Your task to perform on an android device: toggle wifi Image 0: 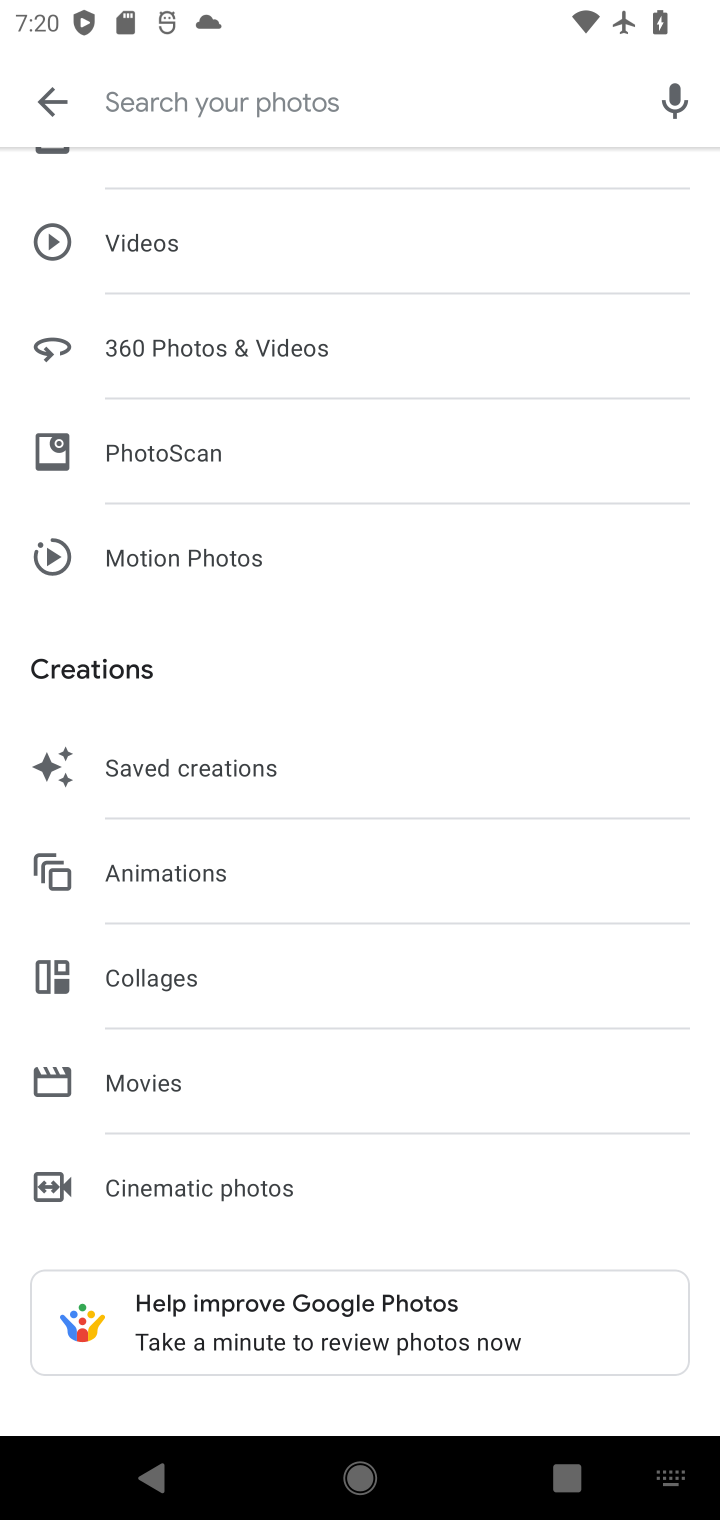
Step 0: press home button
Your task to perform on an android device: toggle wifi Image 1: 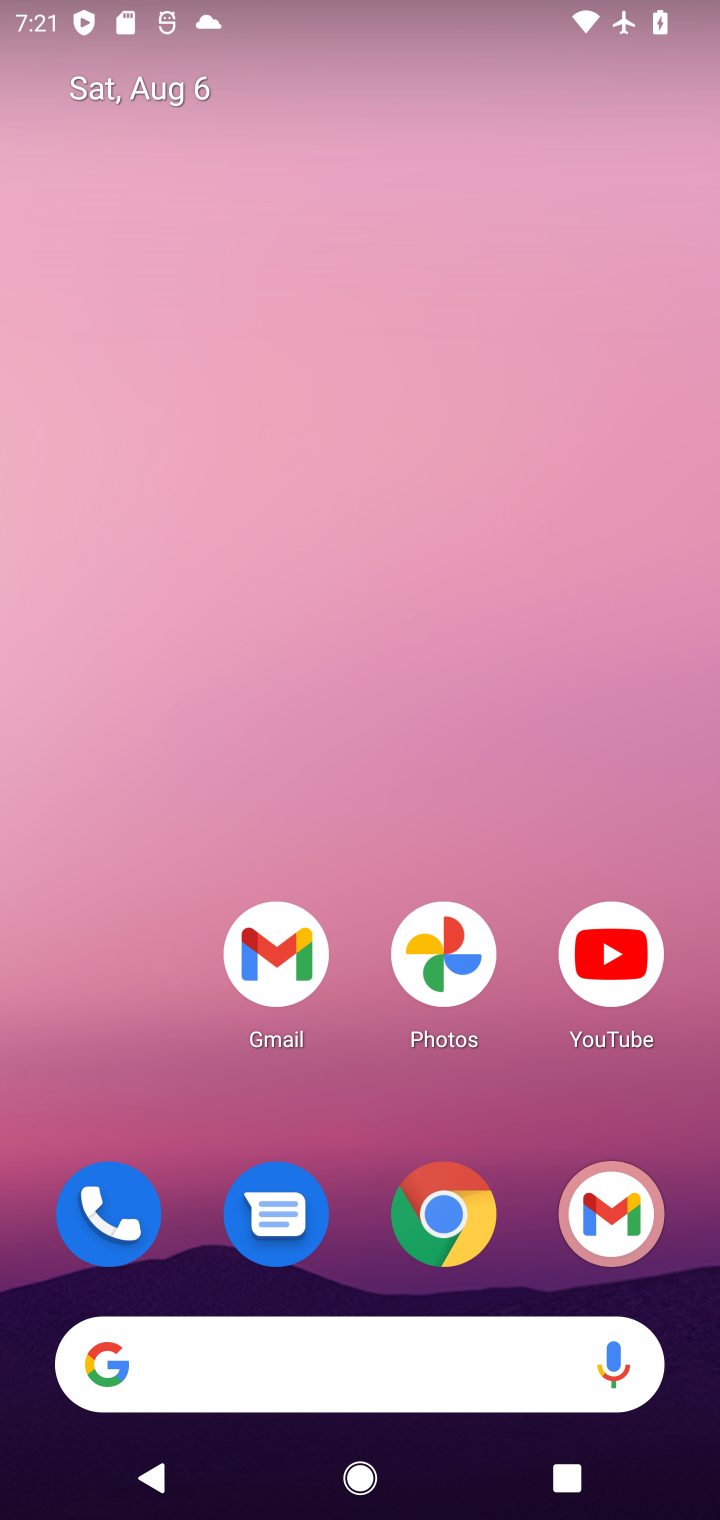
Step 1: drag from (371, 1192) to (257, 0)
Your task to perform on an android device: toggle wifi Image 2: 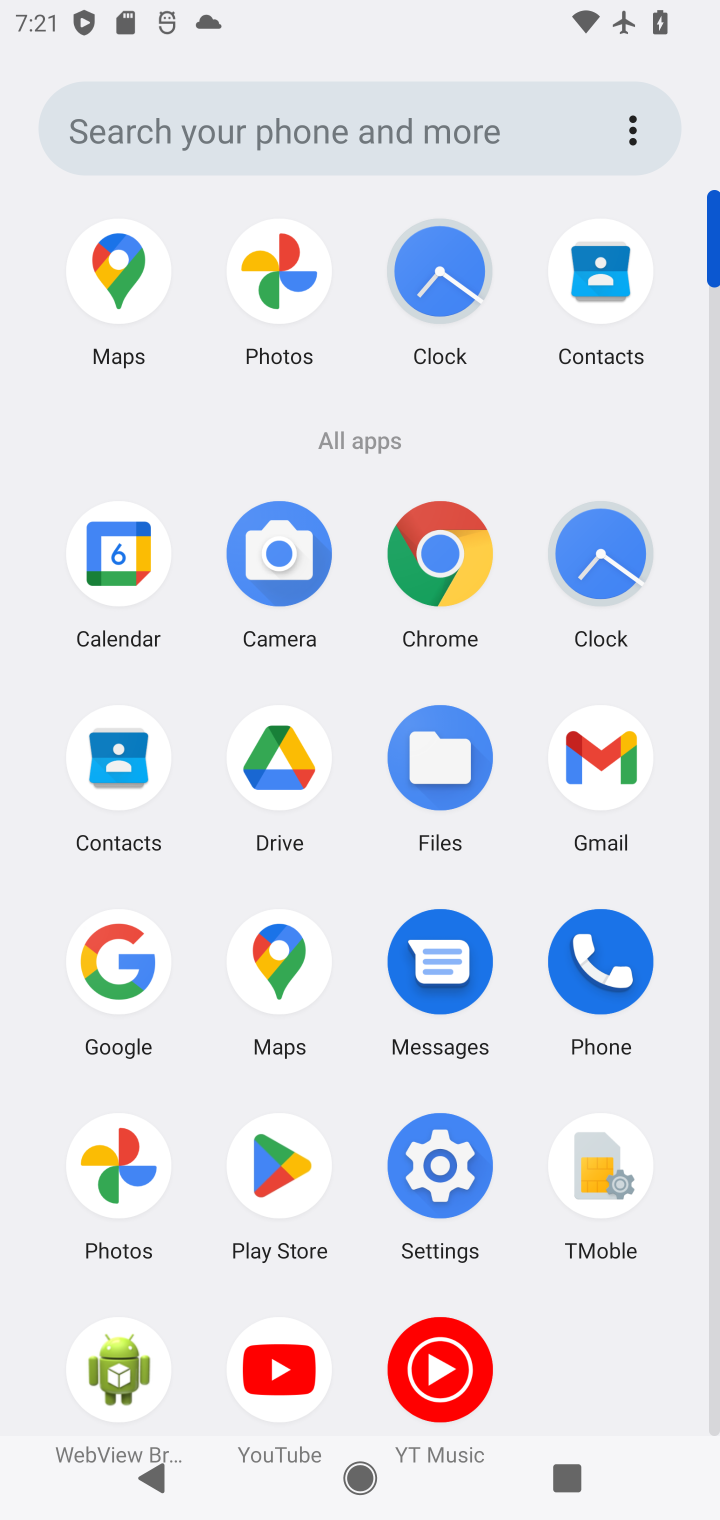
Step 2: click (437, 1175)
Your task to perform on an android device: toggle wifi Image 3: 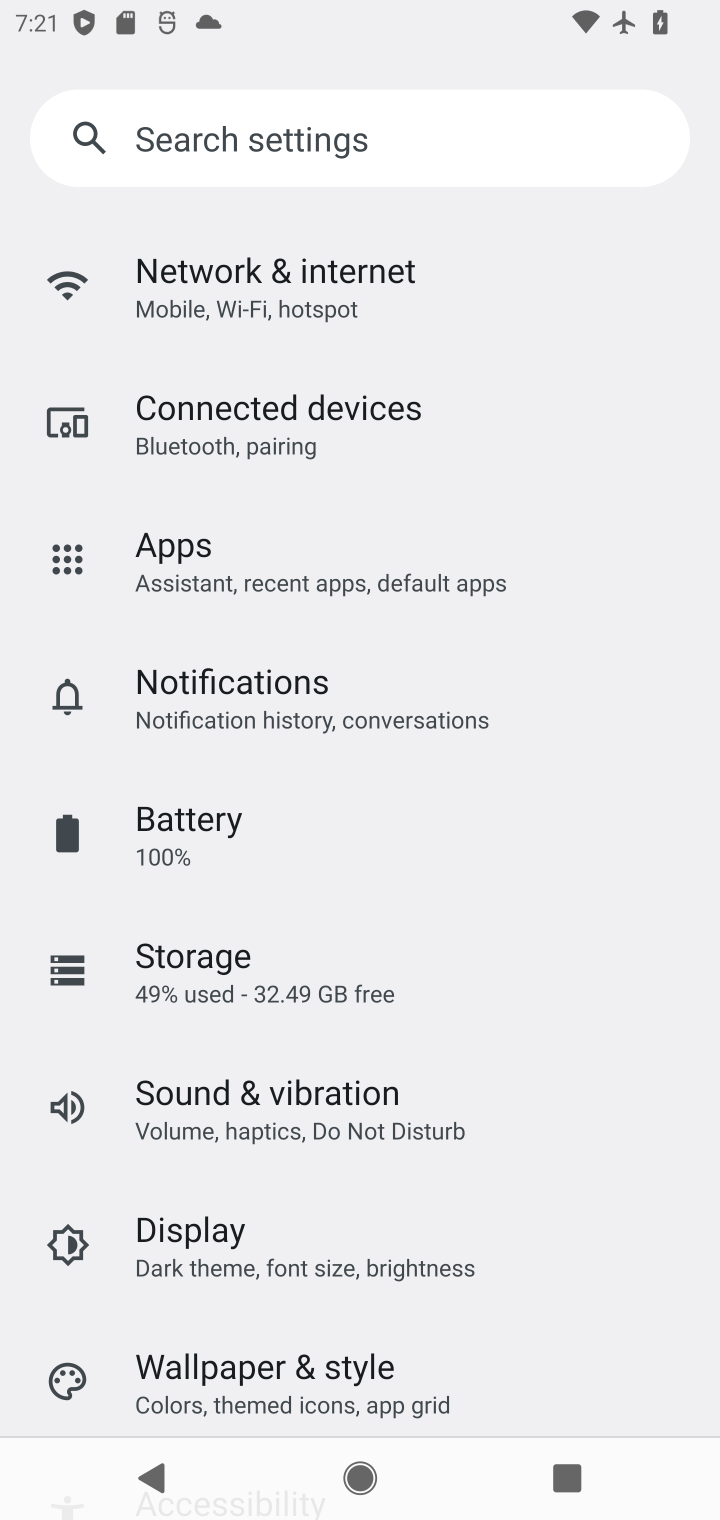
Step 3: click (296, 297)
Your task to perform on an android device: toggle wifi Image 4: 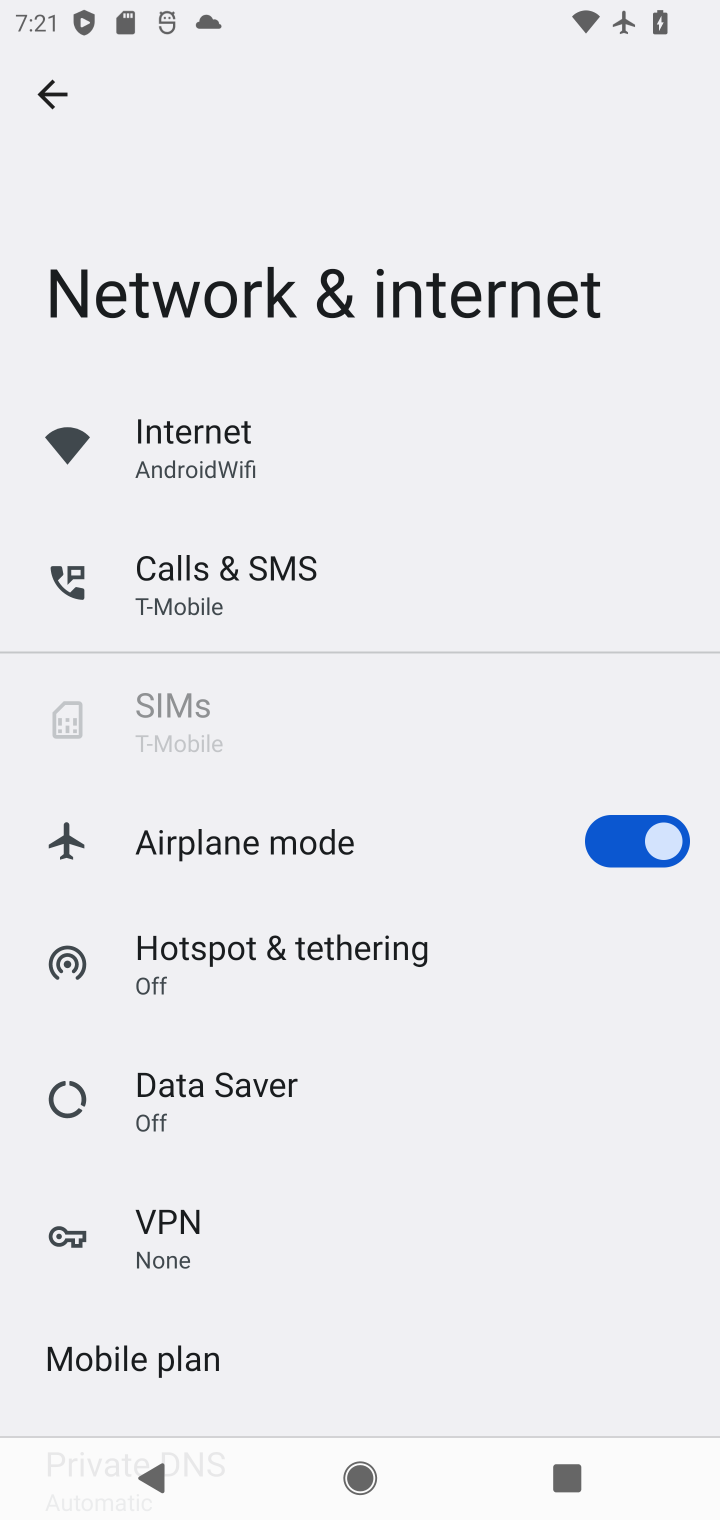
Step 4: click (195, 427)
Your task to perform on an android device: toggle wifi Image 5: 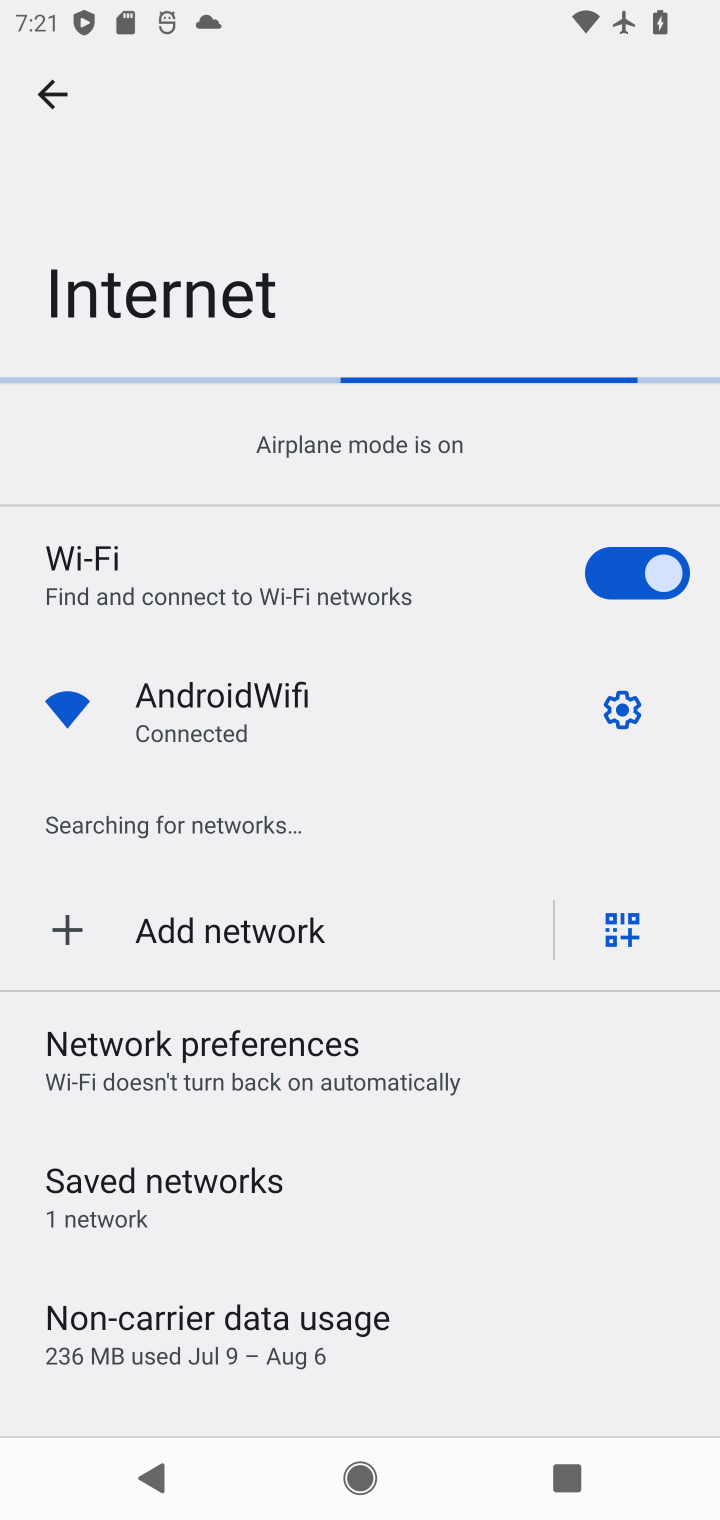
Step 5: click (564, 599)
Your task to perform on an android device: toggle wifi Image 6: 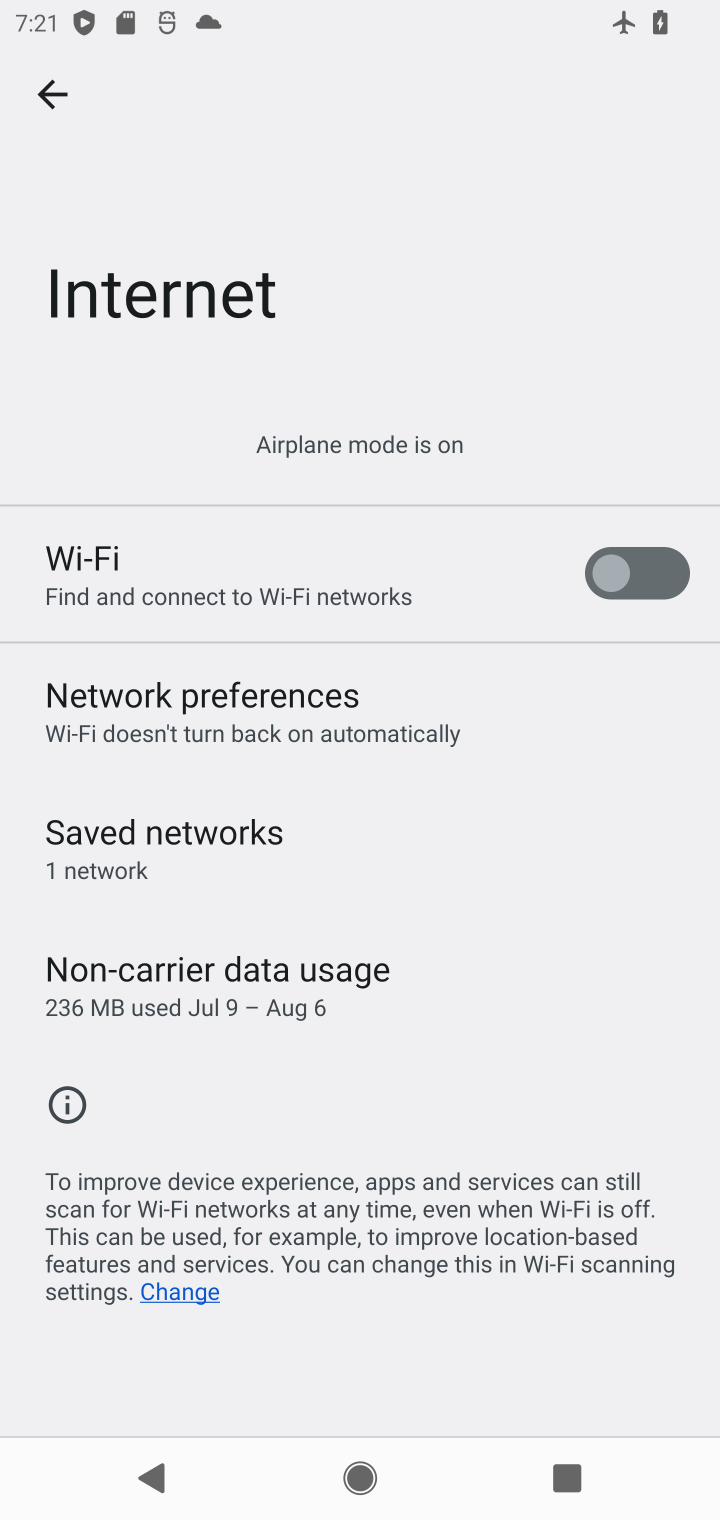
Step 6: click (604, 583)
Your task to perform on an android device: toggle wifi Image 7: 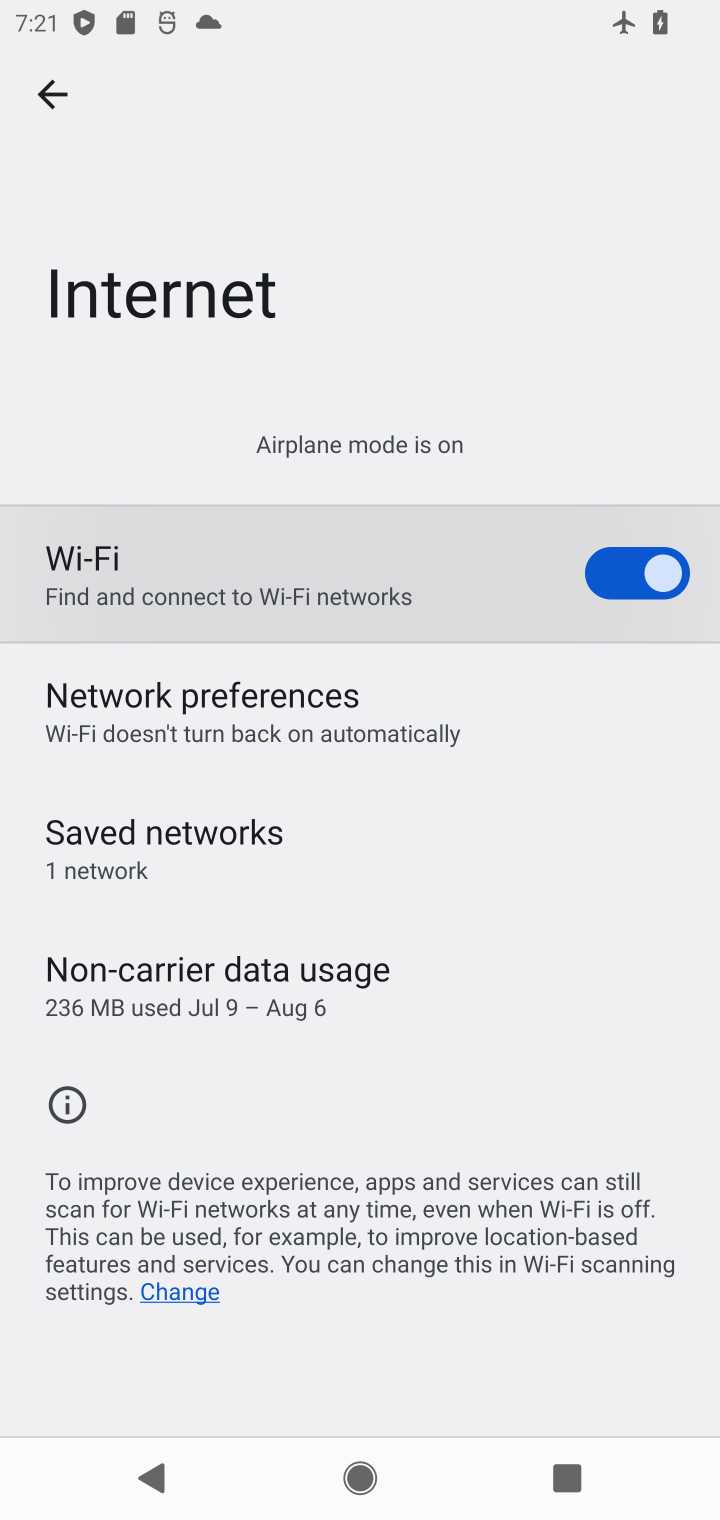
Step 7: task complete